Your task to perform on an android device: Open network settings Image 0: 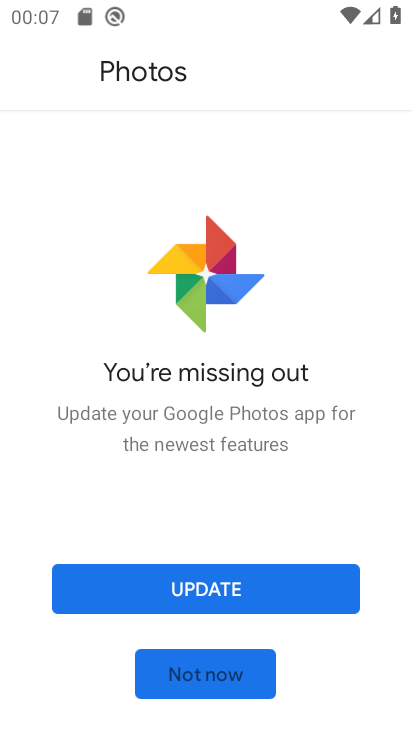
Step 0: click (207, 669)
Your task to perform on an android device: Open network settings Image 1: 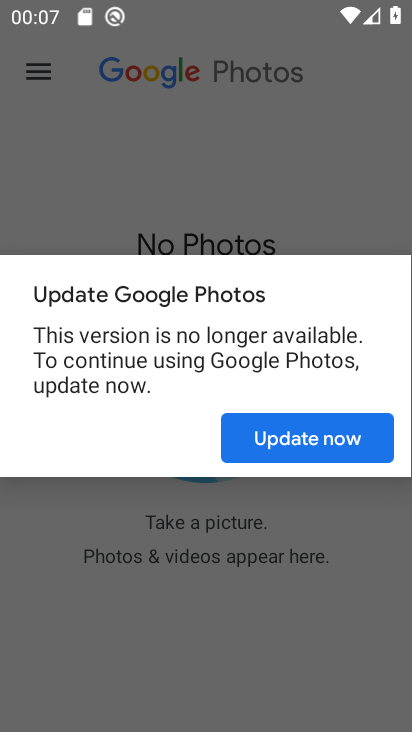
Step 1: click (292, 442)
Your task to perform on an android device: Open network settings Image 2: 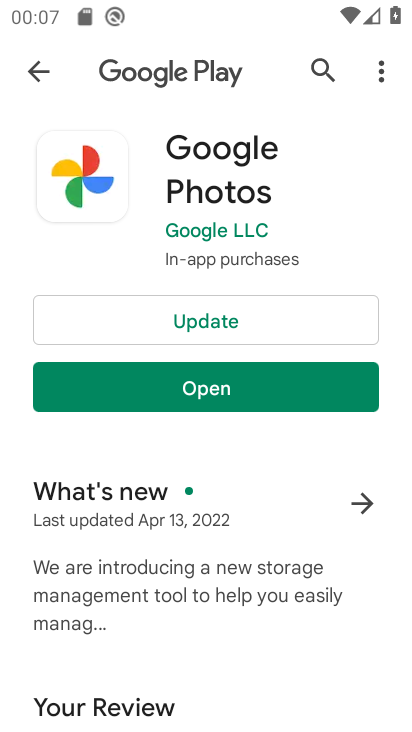
Step 2: click (32, 64)
Your task to perform on an android device: Open network settings Image 3: 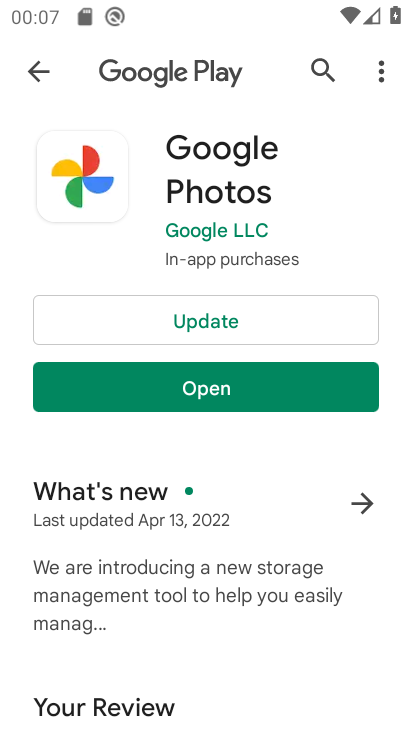
Step 3: click (33, 74)
Your task to perform on an android device: Open network settings Image 4: 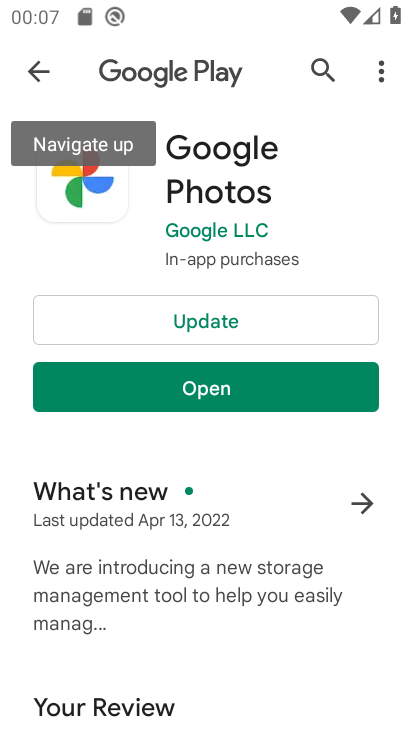
Step 4: click (38, 63)
Your task to perform on an android device: Open network settings Image 5: 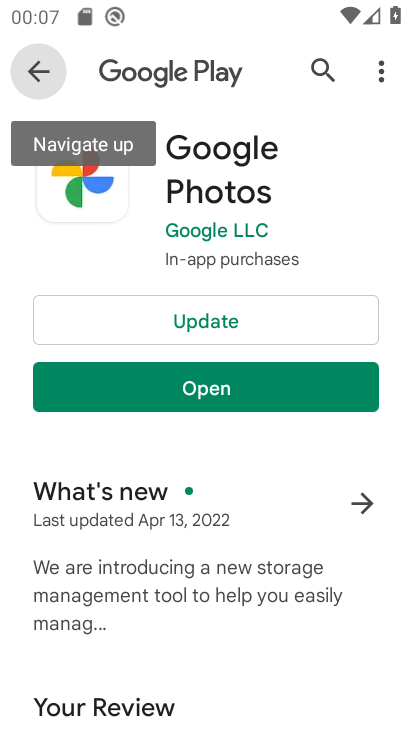
Step 5: click (33, 61)
Your task to perform on an android device: Open network settings Image 6: 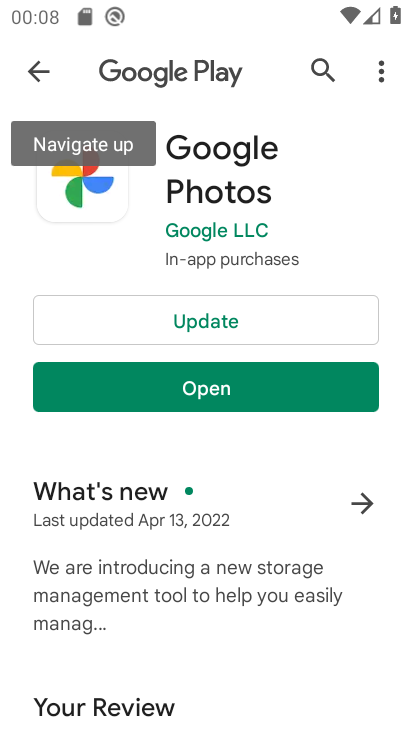
Step 6: press home button
Your task to perform on an android device: Open network settings Image 7: 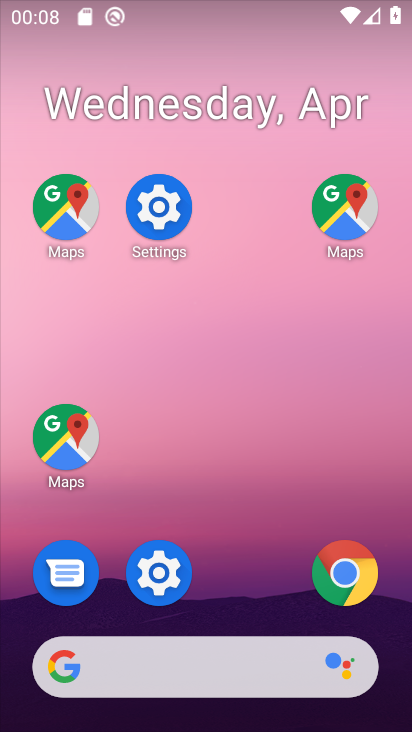
Step 7: drag from (170, 313) to (122, 25)
Your task to perform on an android device: Open network settings Image 8: 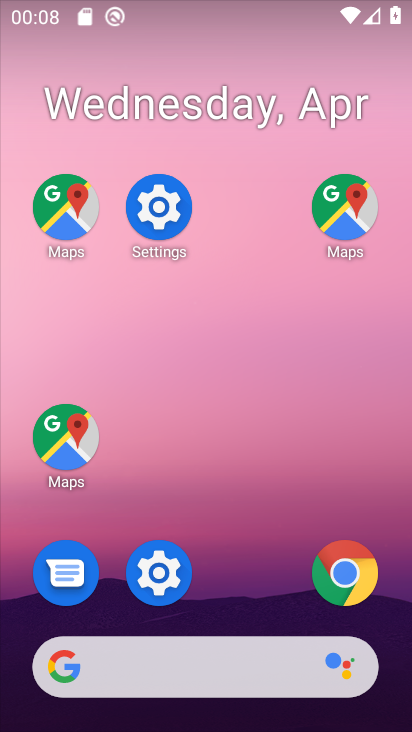
Step 8: drag from (270, 635) to (150, 90)
Your task to perform on an android device: Open network settings Image 9: 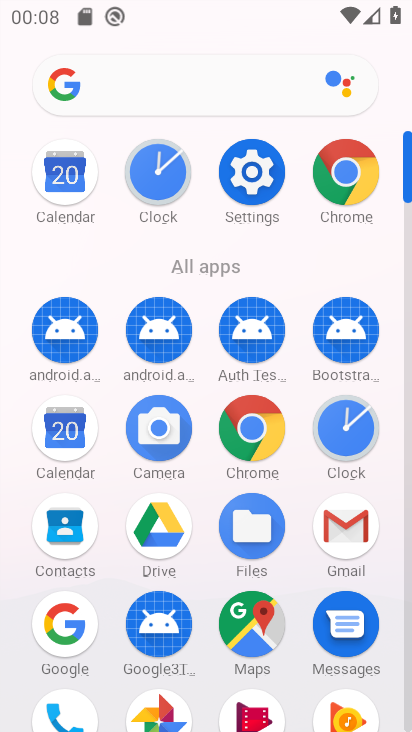
Step 9: click (252, 165)
Your task to perform on an android device: Open network settings Image 10: 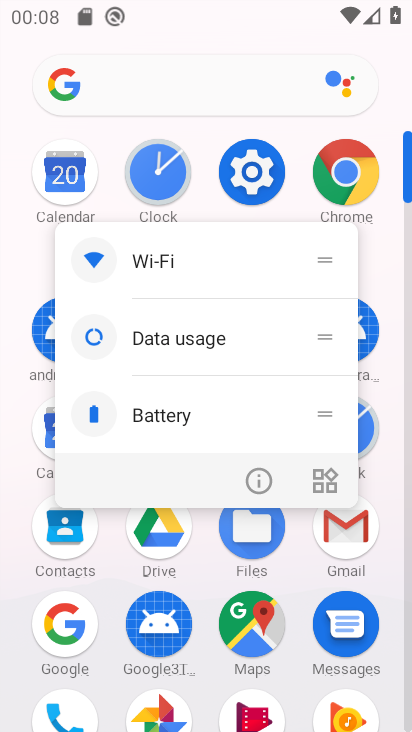
Step 10: drag from (252, 165) to (262, 201)
Your task to perform on an android device: Open network settings Image 11: 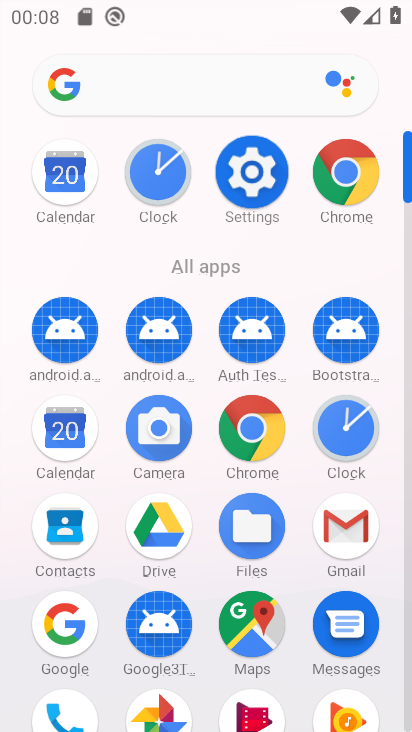
Step 11: click (255, 162)
Your task to perform on an android device: Open network settings Image 12: 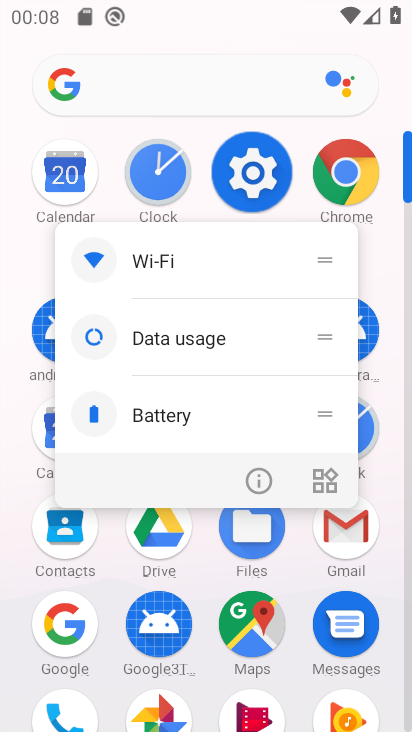
Step 12: click (243, 166)
Your task to perform on an android device: Open network settings Image 13: 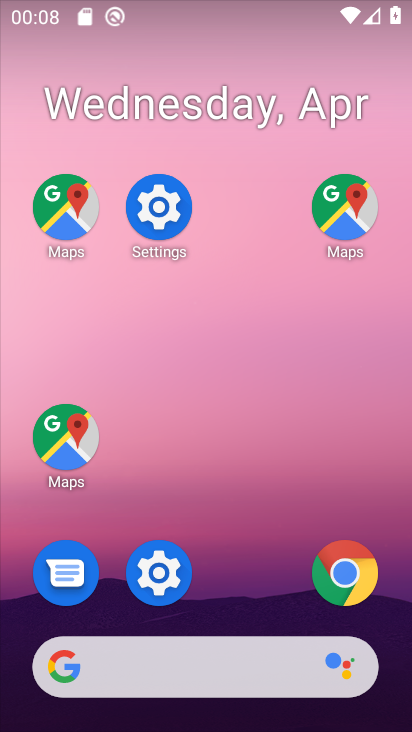
Step 13: click (260, 196)
Your task to perform on an android device: Open network settings Image 14: 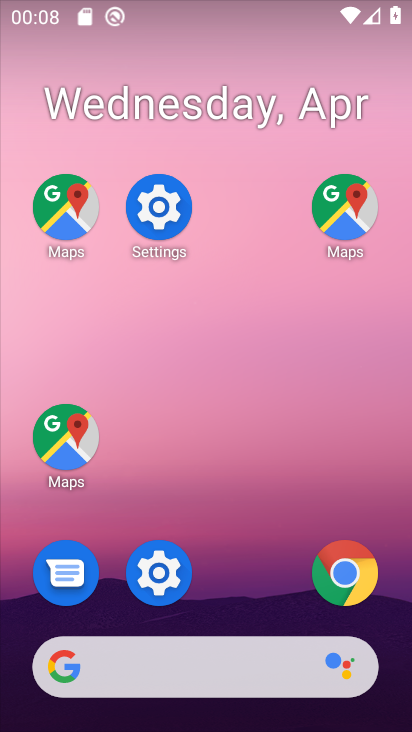
Step 14: drag from (260, 196) to (174, 196)
Your task to perform on an android device: Open network settings Image 15: 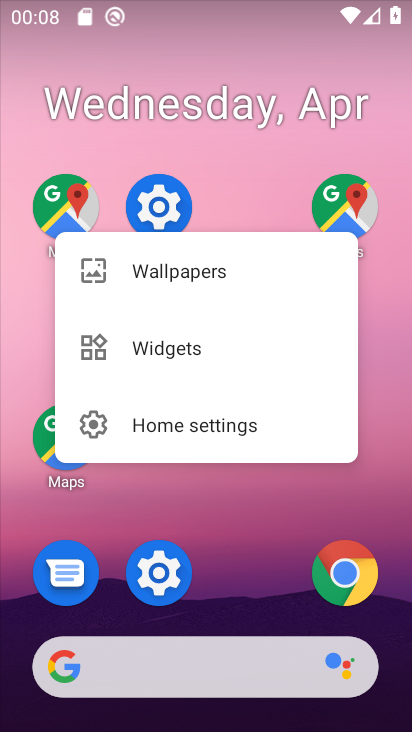
Step 15: click (158, 218)
Your task to perform on an android device: Open network settings Image 16: 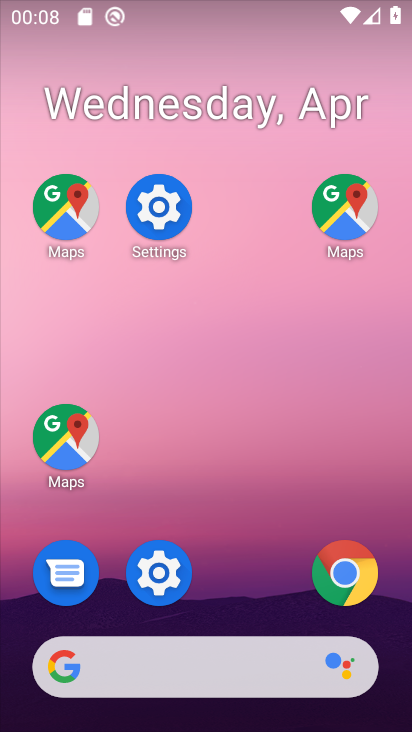
Step 16: click (157, 210)
Your task to perform on an android device: Open network settings Image 17: 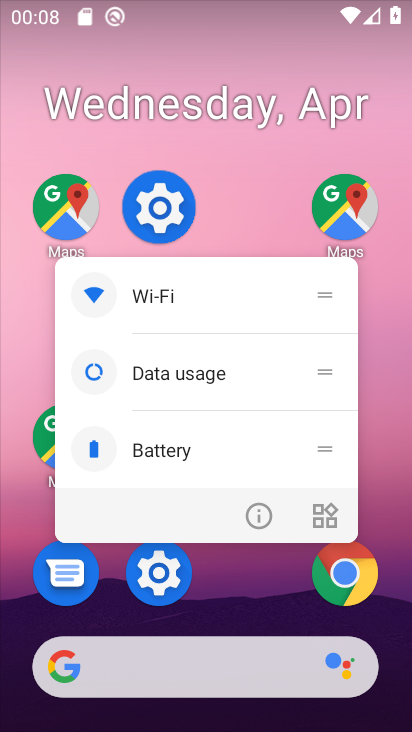
Step 17: click (157, 210)
Your task to perform on an android device: Open network settings Image 18: 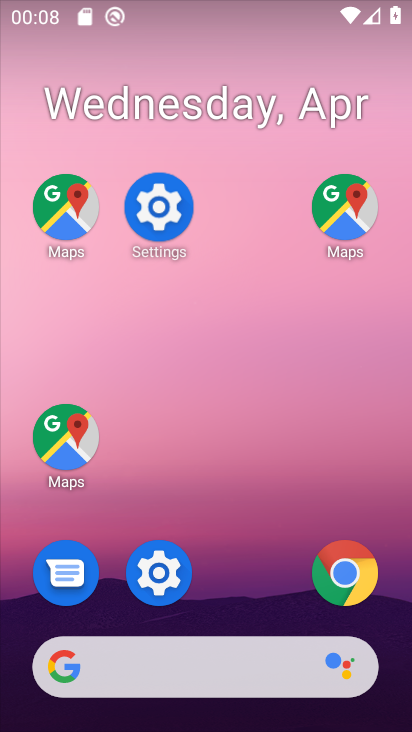
Step 18: drag from (157, 210) to (173, 265)
Your task to perform on an android device: Open network settings Image 19: 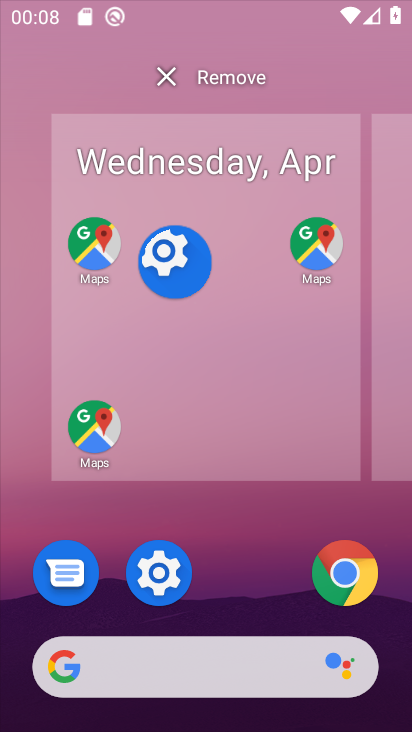
Step 19: click (160, 230)
Your task to perform on an android device: Open network settings Image 20: 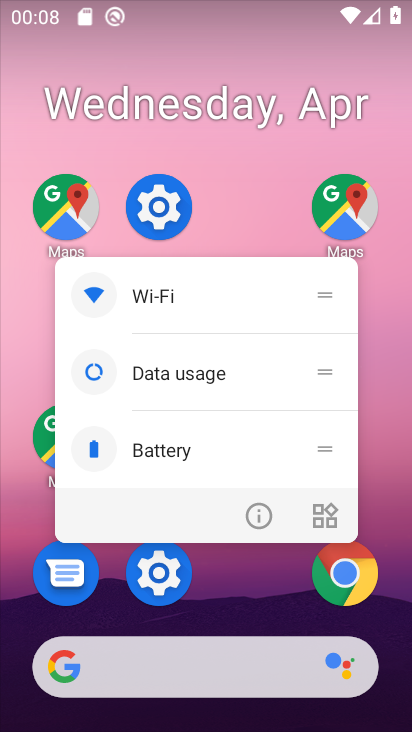
Step 20: click (160, 207)
Your task to perform on an android device: Open network settings Image 21: 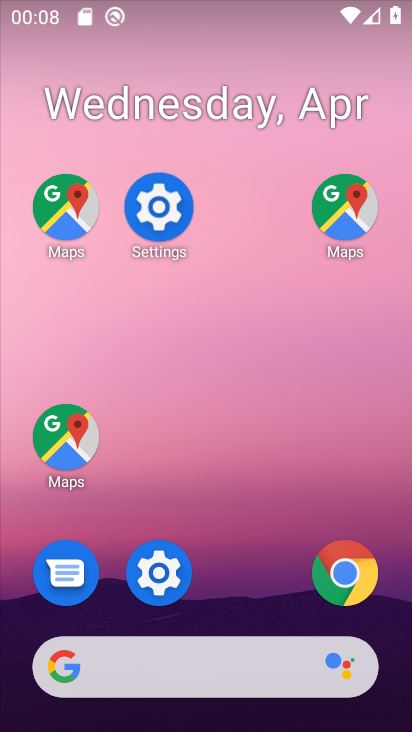
Step 21: click (160, 207)
Your task to perform on an android device: Open network settings Image 22: 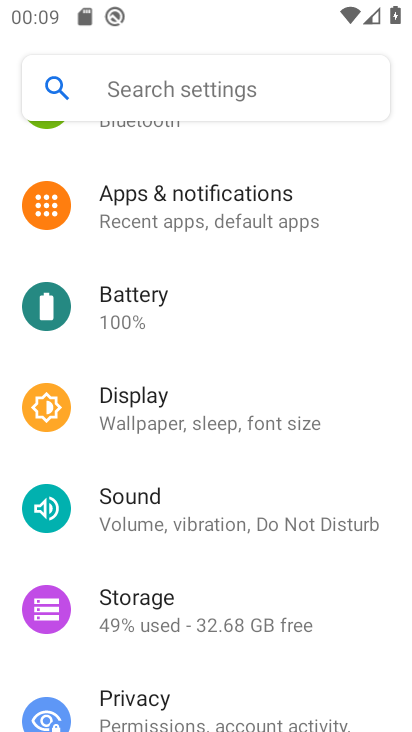
Step 22: drag from (288, 524) to (254, 731)
Your task to perform on an android device: Open network settings Image 23: 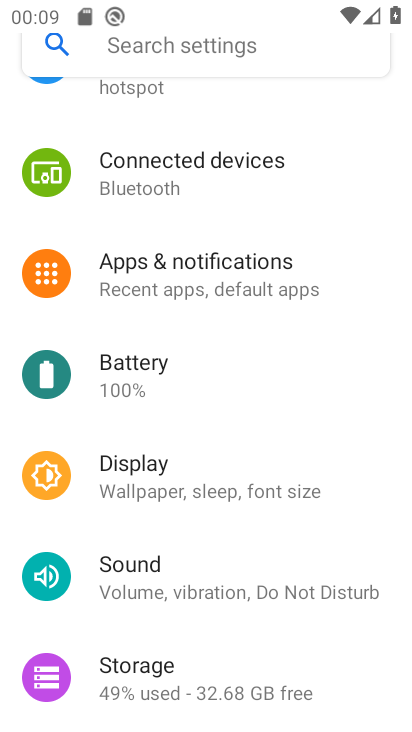
Step 23: drag from (191, 428) to (97, 602)
Your task to perform on an android device: Open network settings Image 24: 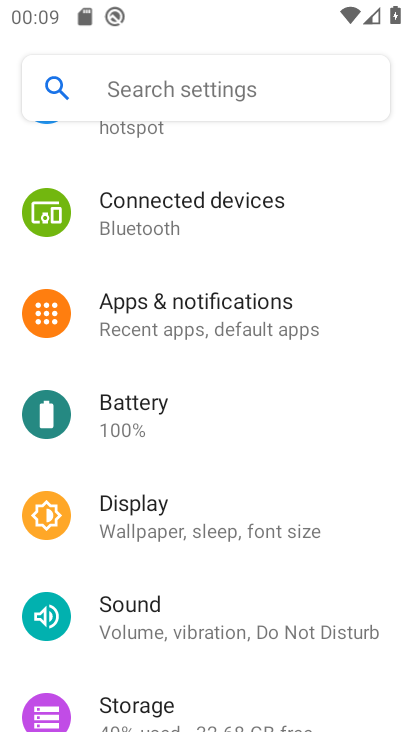
Step 24: drag from (205, 186) to (234, 500)
Your task to perform on an android device: Open network settings Image 25: 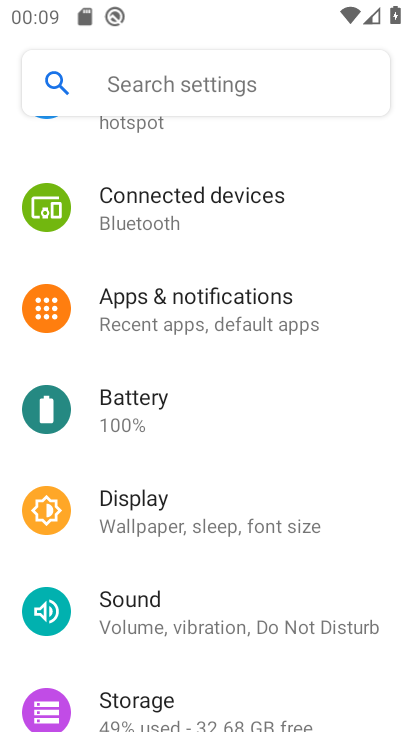
Step 25: drag from (220, 335) to (79, 606)
Your task to perform on an android device: Open network settings Image 26: 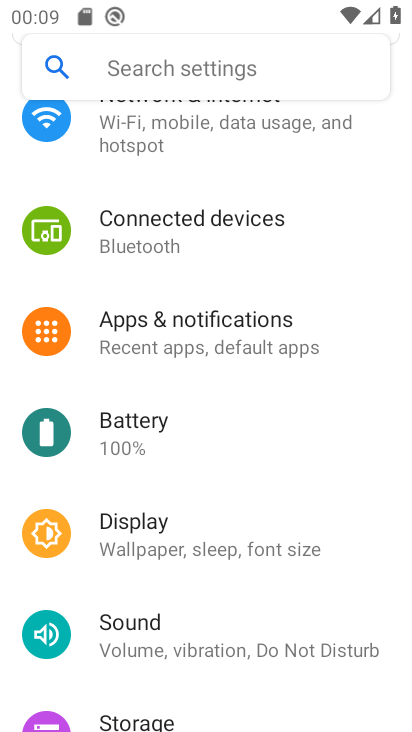
Step 26: drag from (200, 191) to (185, 615)
Your task to perform on an android device: Open network settings Image 27: 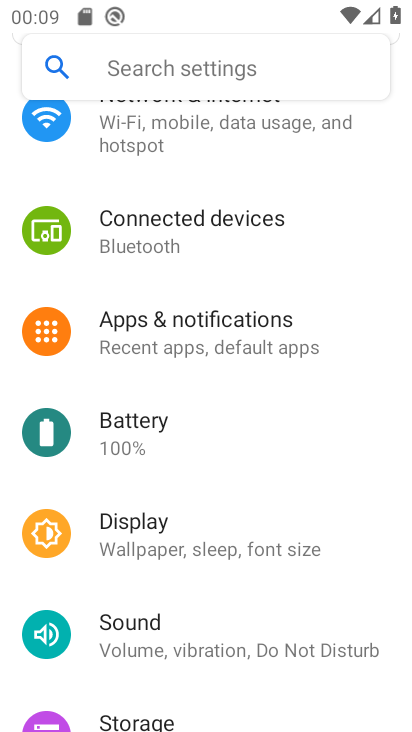
Step 27: drag from (136, 214) to (200, 616)
Your task to perform on an android device: Open network settings Image 28: 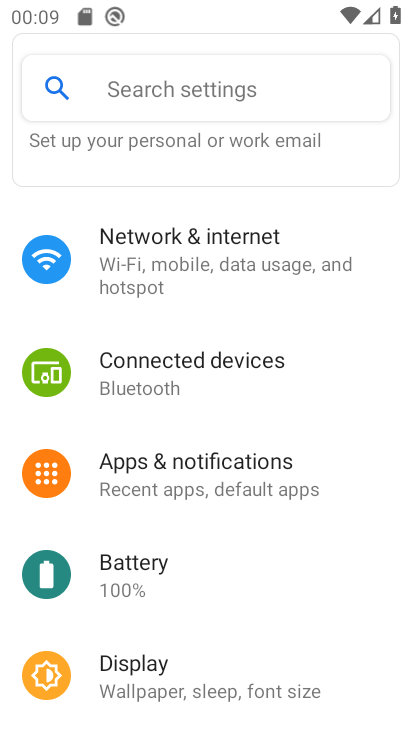
Step 28: click (211, 244)
Your task to perform on an android device: Open network settings Image 29: 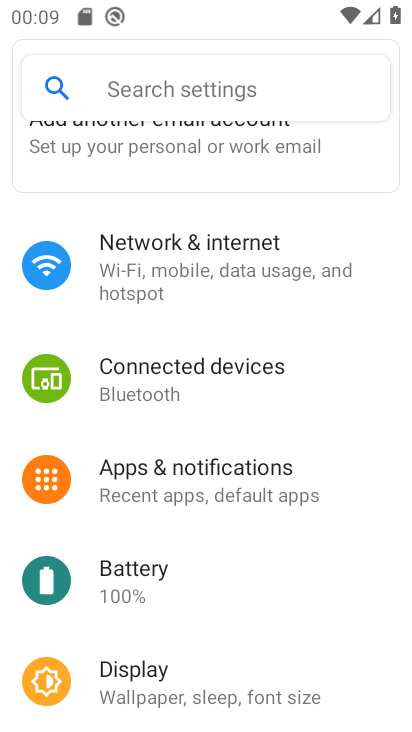
Step 29: click (241, 264)
Your task to perform on an android device: Open network settings Image 30: 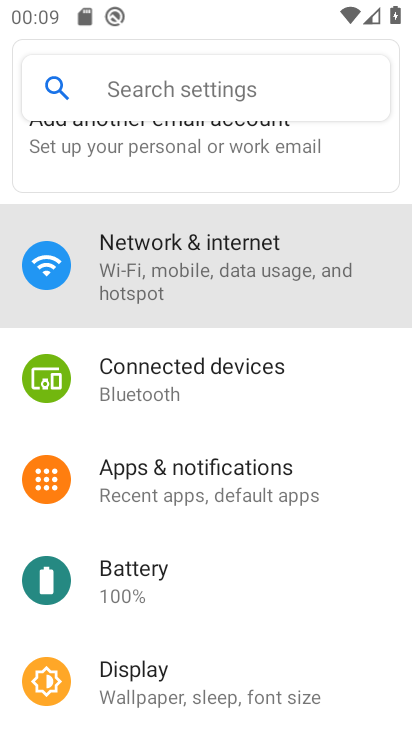
Step 30: click (241, 264)
Your task to perform on an android device: Open network settings Image 31: 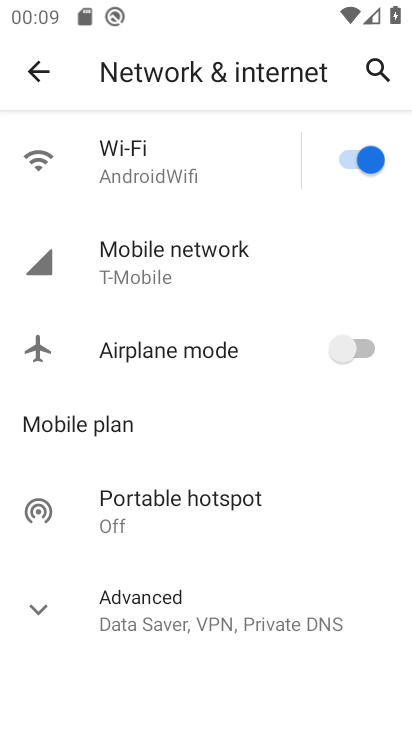
Step 31: click (248, 280)
Your task to perform on an android device: Open network settings Image 32: 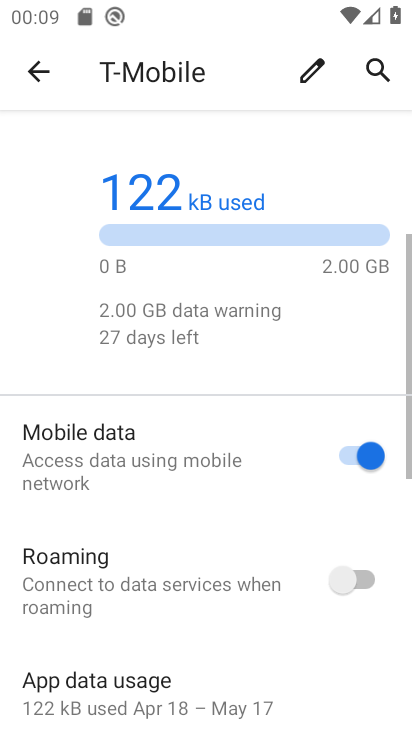
Step 32: task complete